Your task to perform on an android device: uninstall "Booking.com: Hotels and more" Image 0: 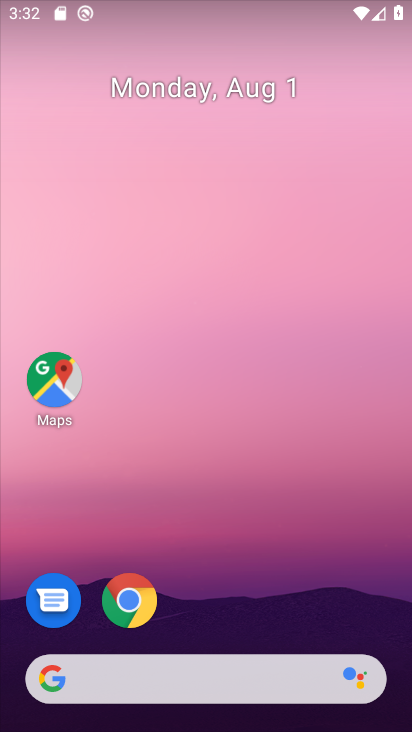
Step 0: click (254, 32)
Your task to perform on an android device: uninstall "Booking.com: Hotels and more" Image 1: 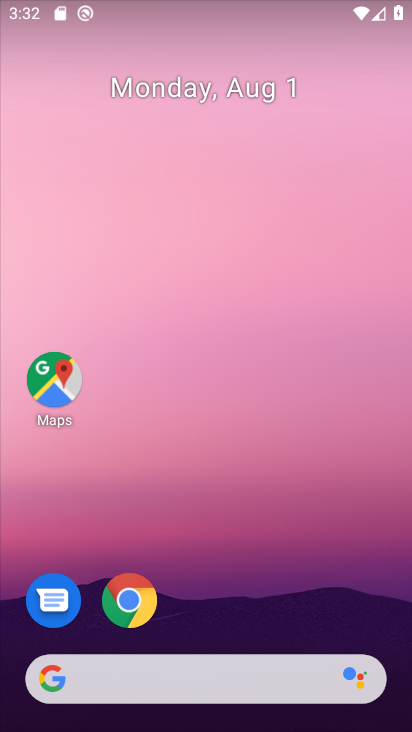
Step 1: drag from (293, 523) to (262, 0)
Your task to perform on an android device: uninstall "Booking.com: Hotels and more" Image 2: 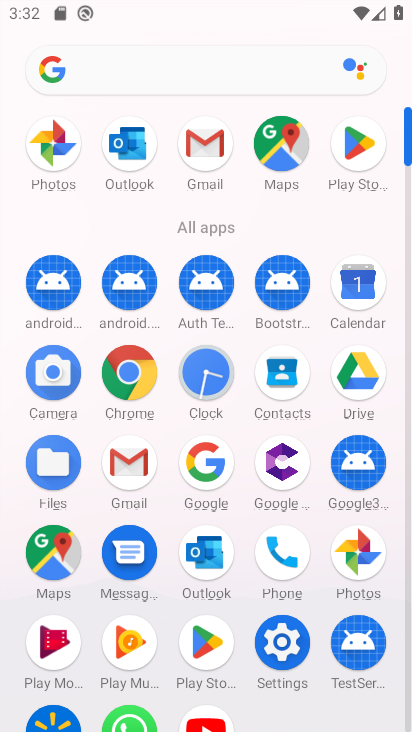
Step 2: click (369, 143)
Your task to perform on an android device: uninstall "Booking.com: Hotels and more" Image 3: 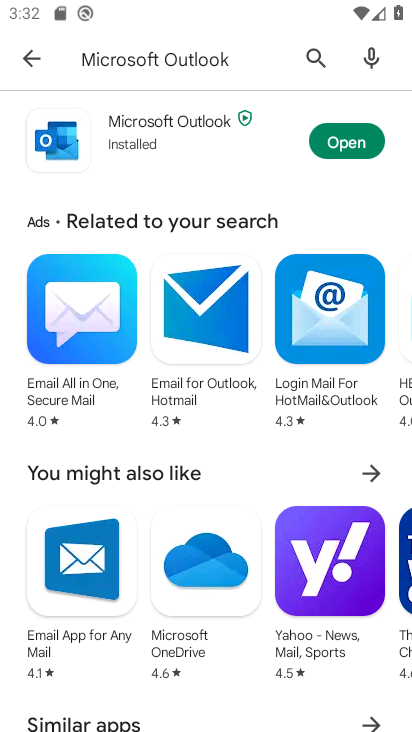
Step 3: click (213, 46)
Your task to perform on an android device: uninstall "Booking.com: Hotels and more" Image 4: 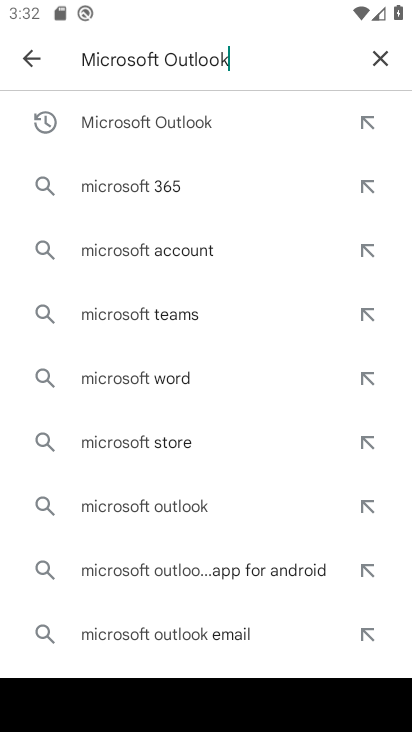
Step 4: click (385, 52)
Your task to perform on an android device: uninstall "Booking.com: Hotels and more" Image 5: 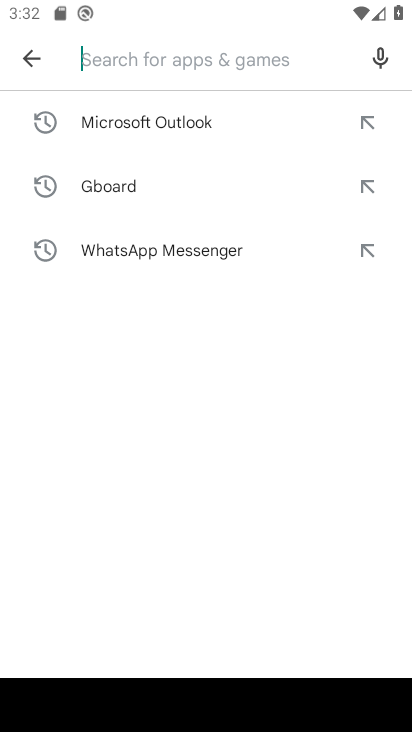
Step 5: type "Booking.com Hotels and more"
Your task to perform on an android device: uninstall "Booking.com: Hotels and more" Image 6: 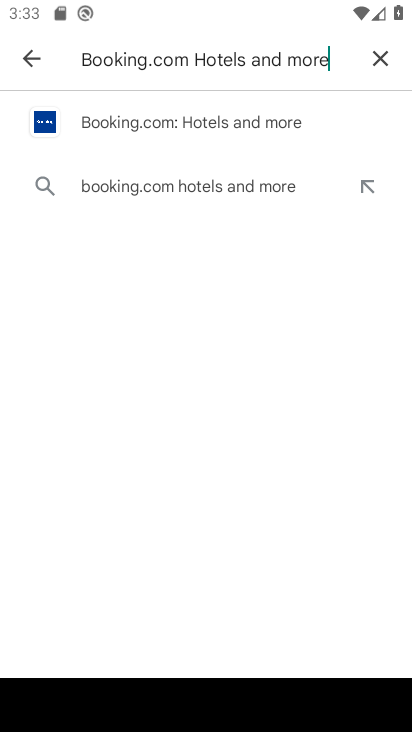
Step 6: click (292, 126)
Your task to perform on an android device: uninstall "Booking.com: Hotels and more" Image 7: 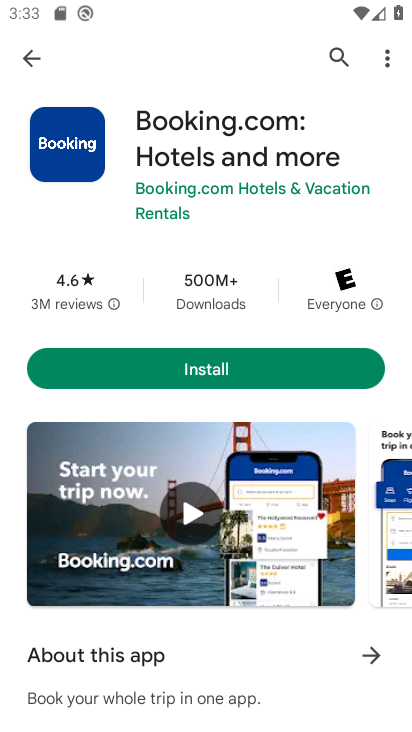
Step 7: task complete